Your task to perform on an android device: turn vacation reply on in the gmail app Image 0: 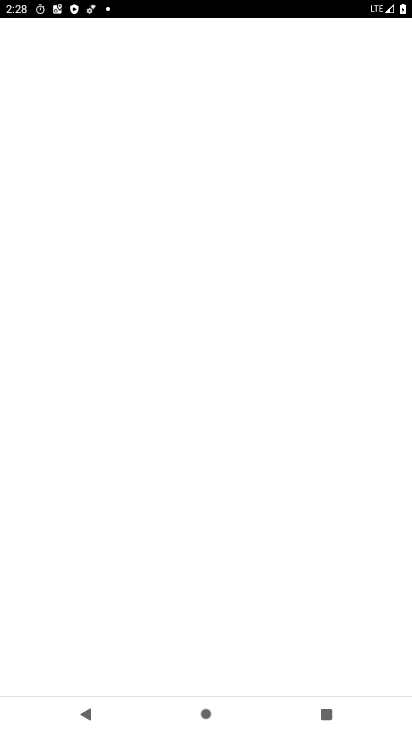
Step 0: drag from (244, 594) to (203, 100)
Your task to perform on an android device: turn vacation reply on in the gmail app Image 1: 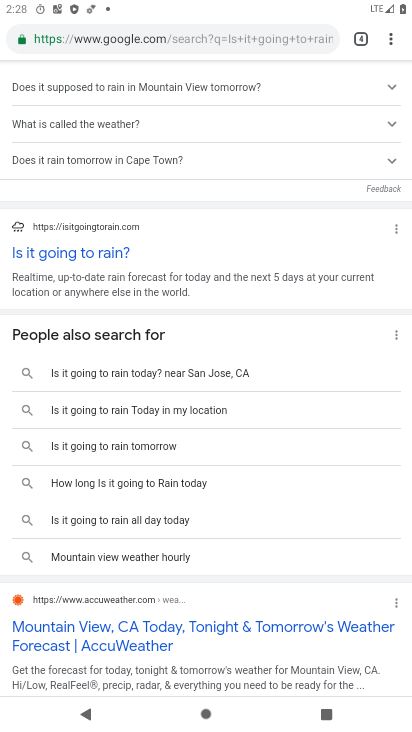
Step 1: press home button
Your task to perform on an android device: turn vacation reply on in the gmail app Image 2: 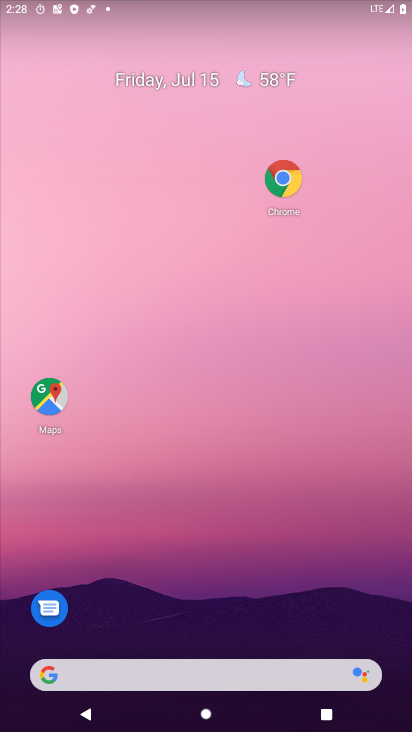
Step 2: drag from (270, 595) to (209, 70)
Your task to perform on an android device: turn vacation reply on in the gmail app Image 3: 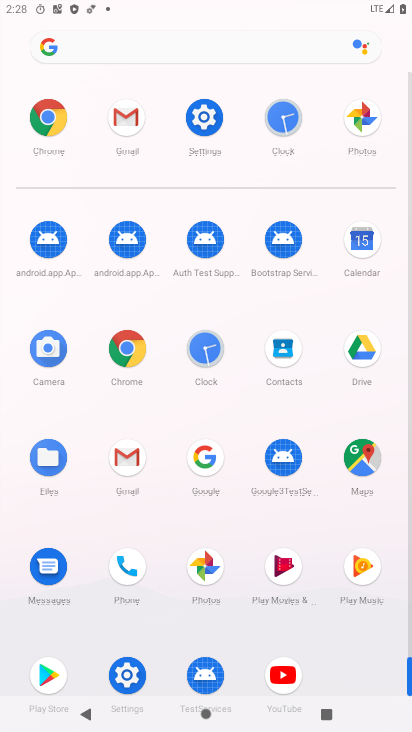
Step 3: click (125, 448)
Your task to perform on an android device: turn vacation reply on in the gmail app Image 4: 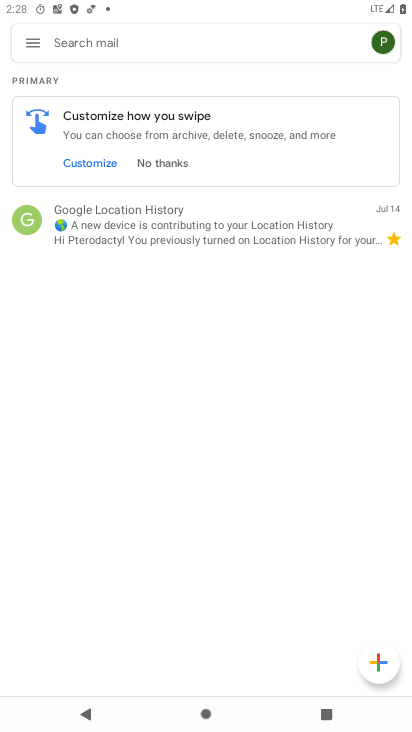
Step 4: click (27, 35)
Your task to perform on an android device: turn vacation reply on in the gmail app Image 5: 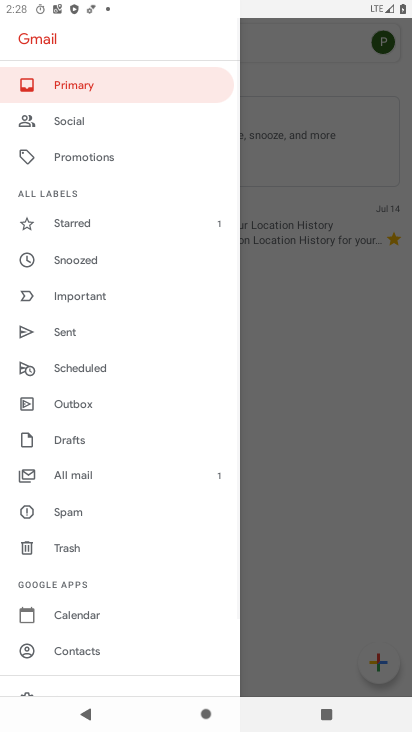
Step 5: drag from (145, 623) to (126, 266)
Your task to perform on an android device: turn vacation reply on in the gmail app Image 6: 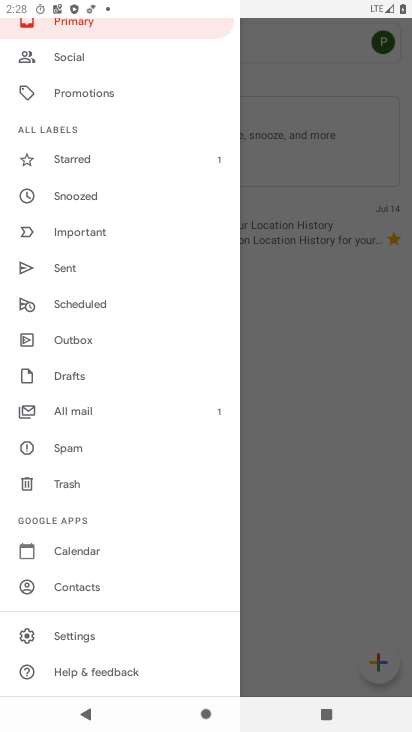
Step 6: click (89, 638)
Your task to perform on an android device: turn vacation reply on in the gmail app Image 7: 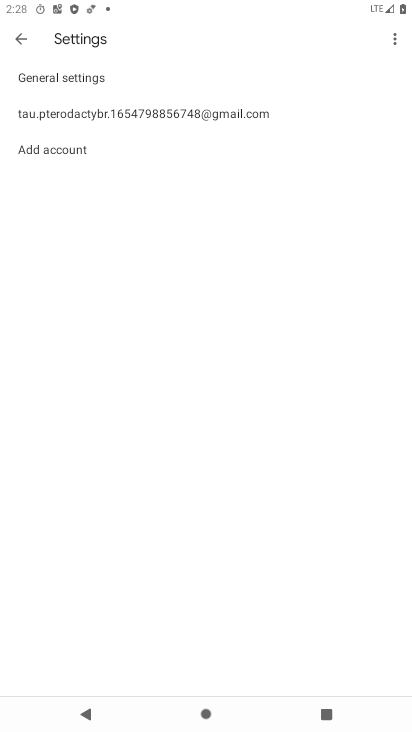
Step 7: click (63, 117)
Your task to perform on an android device: turn vacation reply on in the gmail app Image 8: 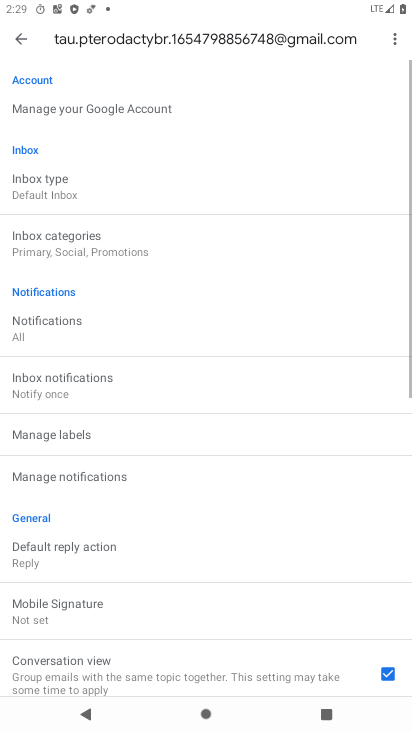
Step 8: drag from (186, 613) to (187, 326)
Your task to perform on an android device: turn vacation reply on in the gmail app Image 9: 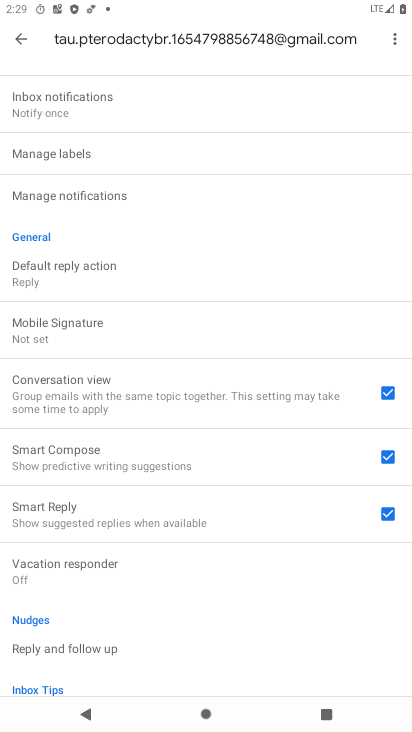
Step 9: click (65, 570)
Your task to perform on an android device: turn vacation reply on in the gmail app Image 10: 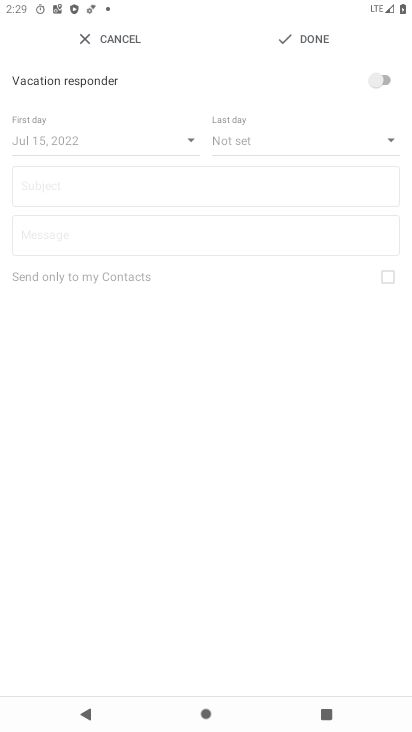
Step 10: click (361, 83)
Your task to perform on an android device: turn vacation reply on in the gmail app Image 11: 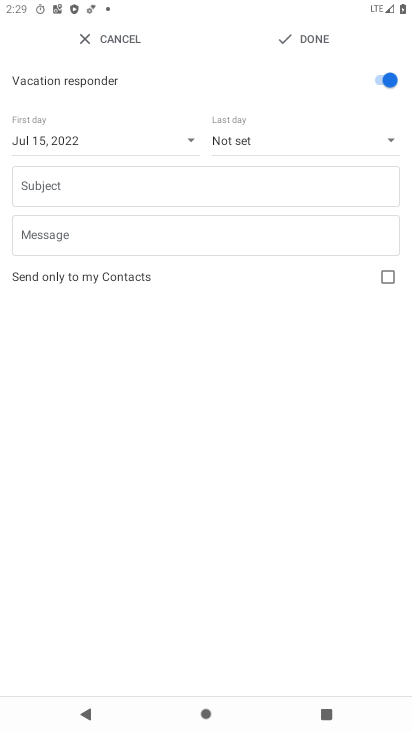
Step 11: click (304, 38)
Your task to perform on an android device: turn vacation reply on in the gmail app Image 12: 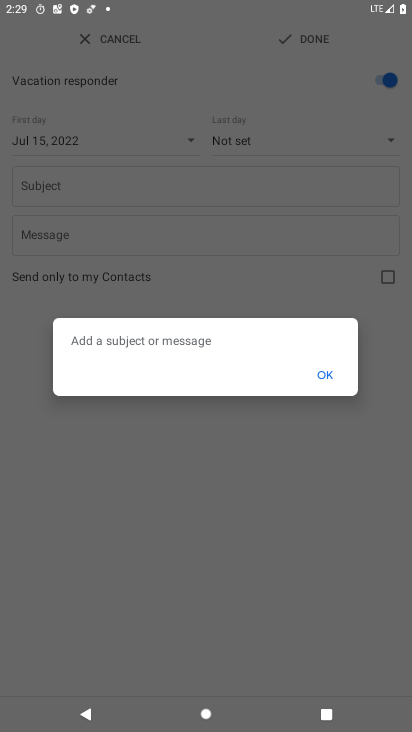
Step 12: click (316, 376)
Your task to perform on an android device: turn vacation reply on in the gmail app Image 13: 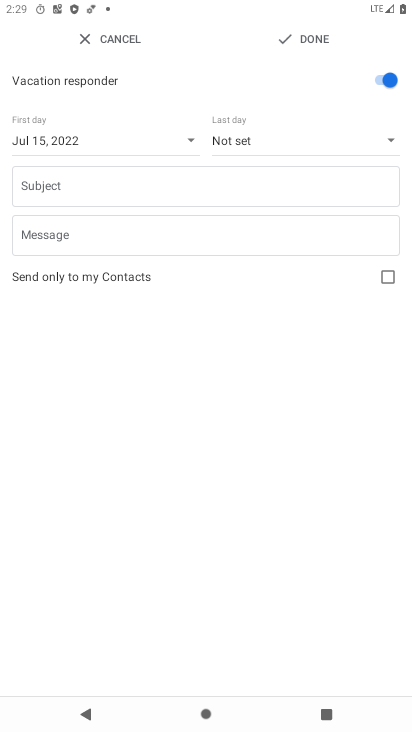
Step 13: task complete